Your task to perform on an android device: visit the assistant section in the google photos Image 0: 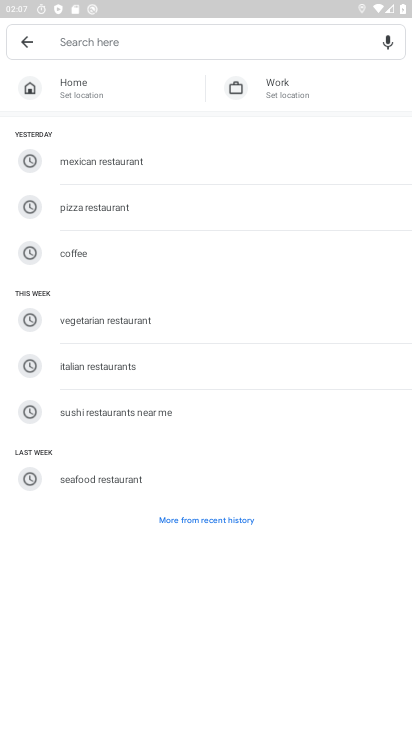
Step 0: press home button
Your task to perform on an android device: visit the assistant section in the google photos Image 1: 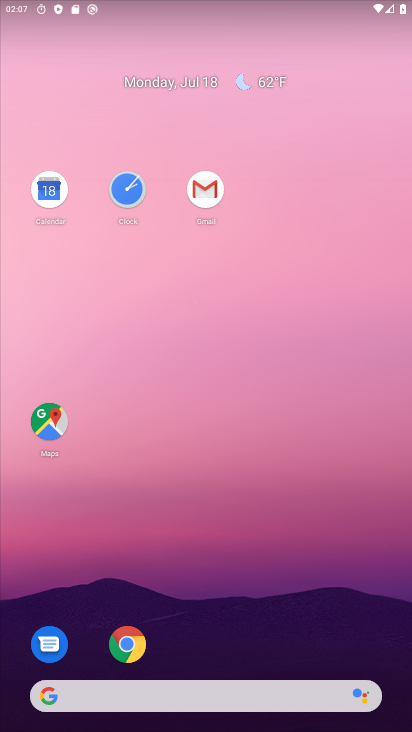
Step 1: drag from (237, 597) to (249, 241)
Your task to perform on an android device: visit the assistant section in the google photos Image 2: 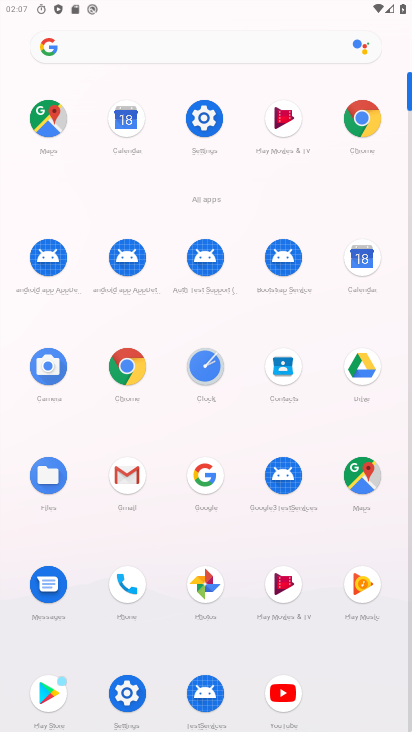
Step 2: drag from (214, 586) to (257, 261)
Your task to perform on an android device: visit the assistant section in the google photos Image 3: 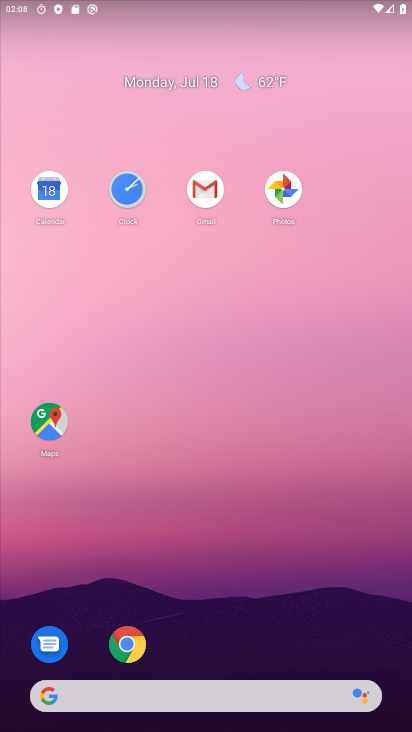
Step 3: click (281, 184)
Your task to perform on an android device: visit the assistant section in the google photos Image 4: 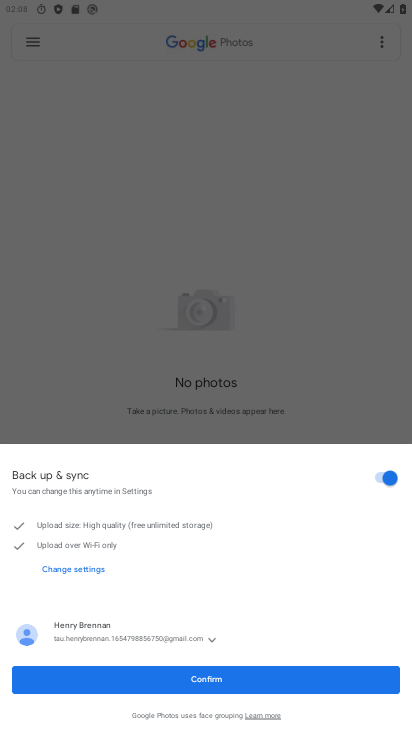
Step 4: click (185, 684)
Your task to perform on an android device: visit the assistant section in the google photos Image 5: 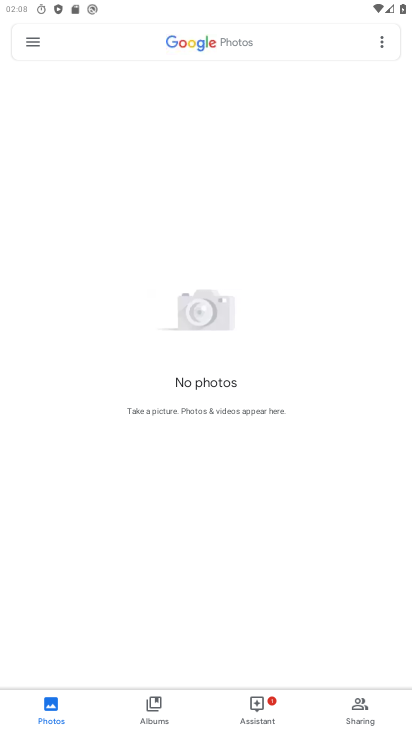
Step 5: click (267, 704)
Your task to perform on an android device: visit the assistant section in the google photos Image 6: 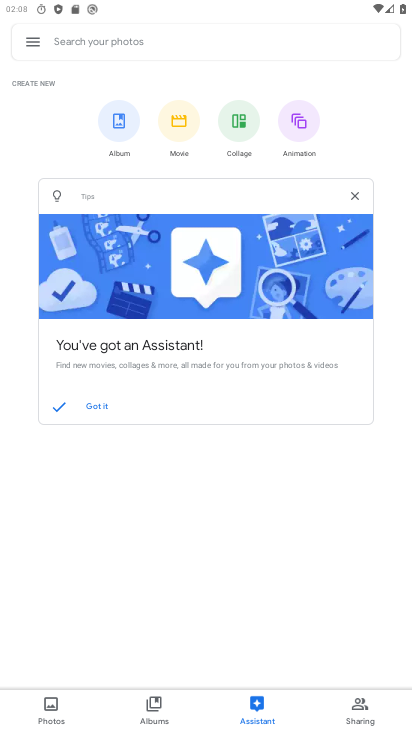
Step 6: task complete